Your task to perform on an android device: turn off sleep mode Image 0: 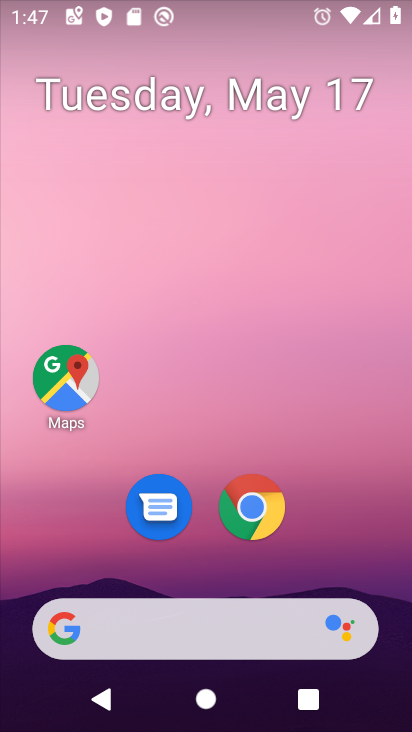
Step 0: drag from (311, 519) to (333, 209)
Your task to perform on an android device: turn off sleep mode Image 1: 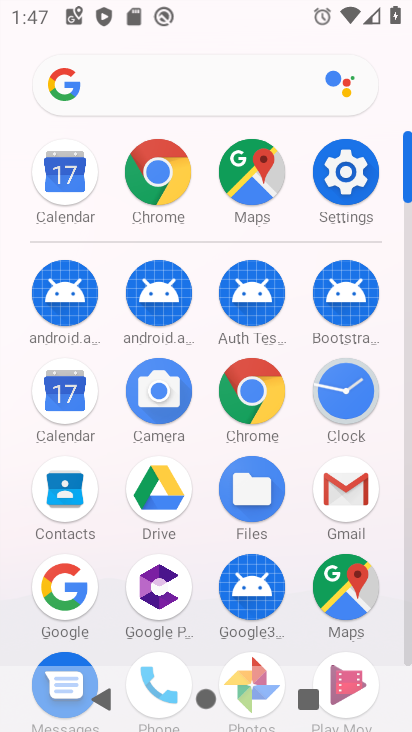
Step 1: click (346, 174)
Your task to perform on an android device: turn off sleep mode Image 2: 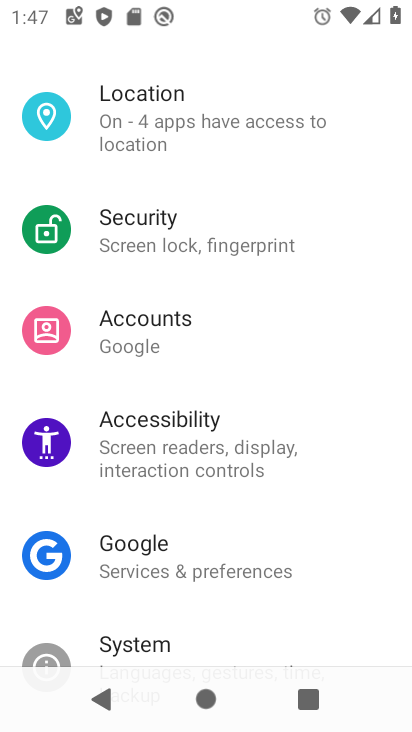
Step 2: task complete